Your task to perform on an android device: turn on improve location accuracy Image 0: 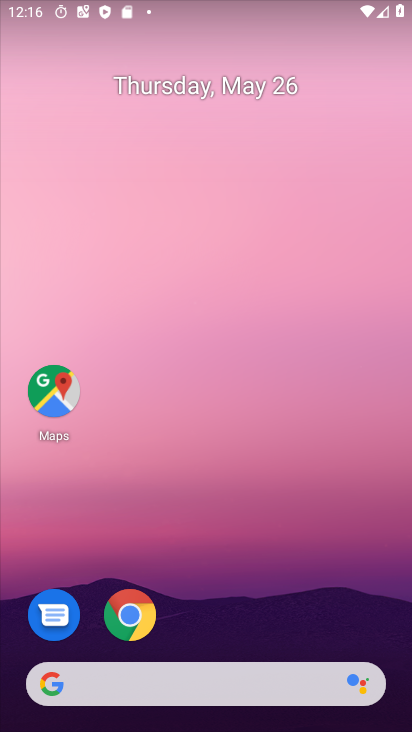
Step 0: drag from (224, 613) to (192, 203)
Your task to perform on an android device: turn on improve location accuracy Image 1: 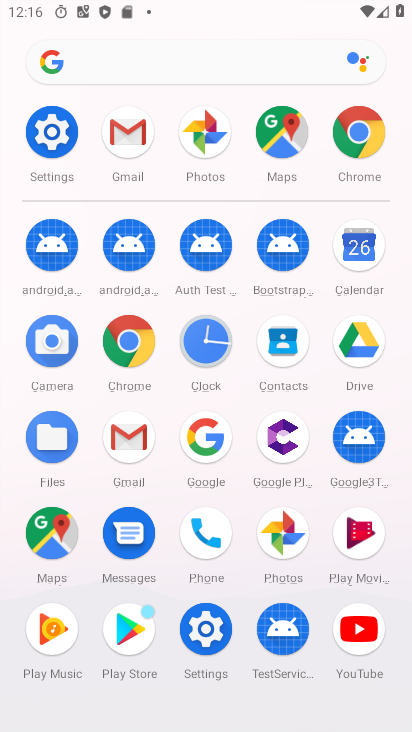
Step 1: click (49, 140)
Your task to perform on an android device: turn on improve location accuracy Image 2: 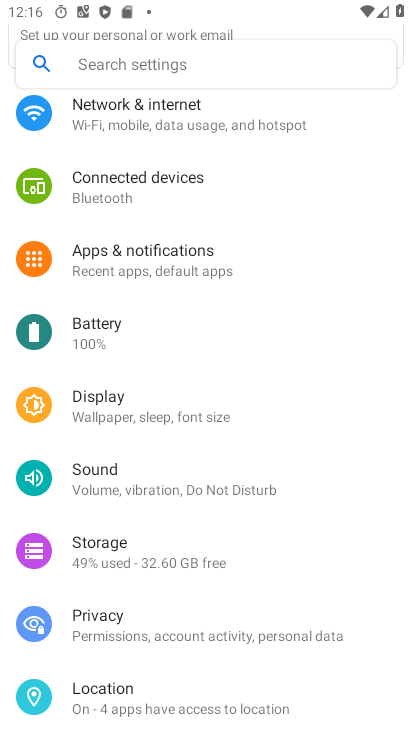
Step 2: click (212, 696)
Your task to perform on an android device: turn on improve location accuracy Image 3: 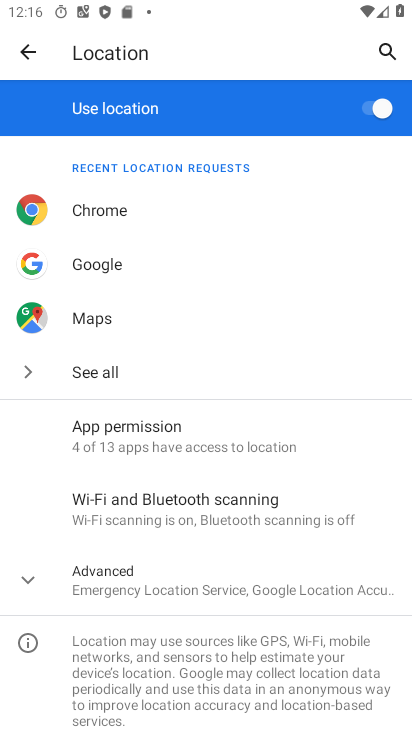
Step 3: click (267, 593)
Your task to perform on an android device: turn on improve location accuracy Image 4: 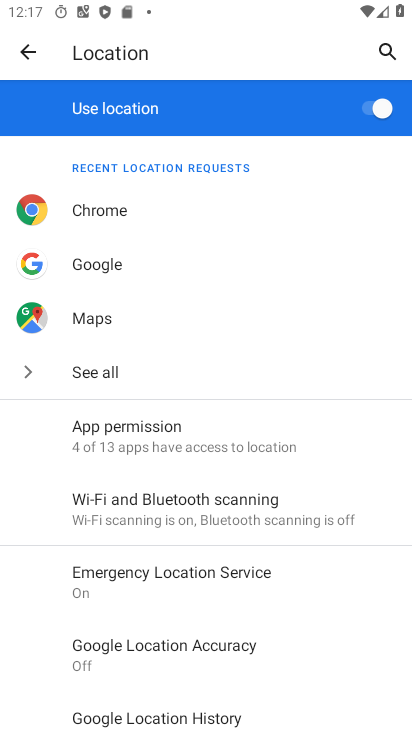
Step 4: click (278, 666)
Your task to perform on an android device: turn on improve location accuracy Image 5: 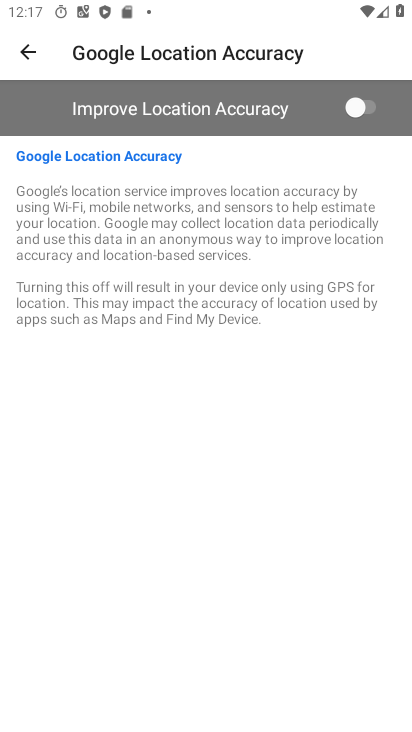
Step 5: click (361, 114)
Your task to perform on an android device: turn on improve location accuracy Image 6: 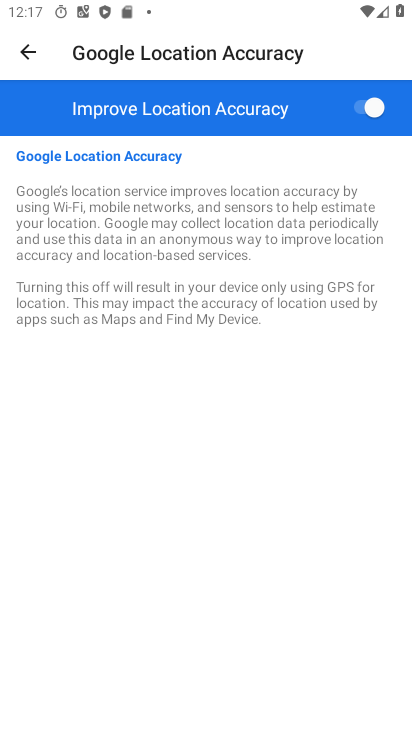
Step 6: task complete